Your task to perform on an android device: set the timer Image 0: 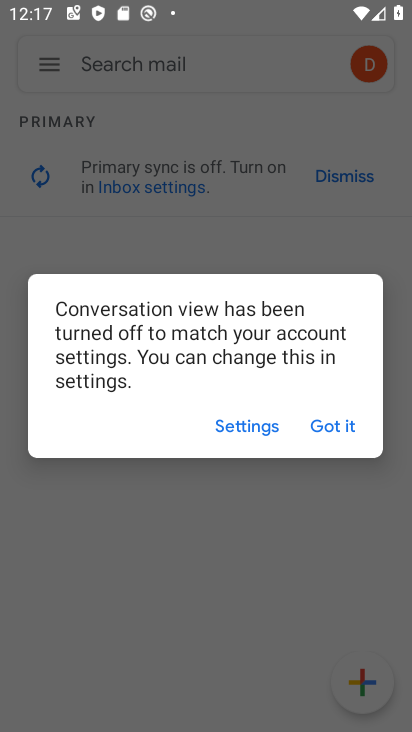
Step 0: press back button
Your task to perform on an android device: set the timer Image 1: 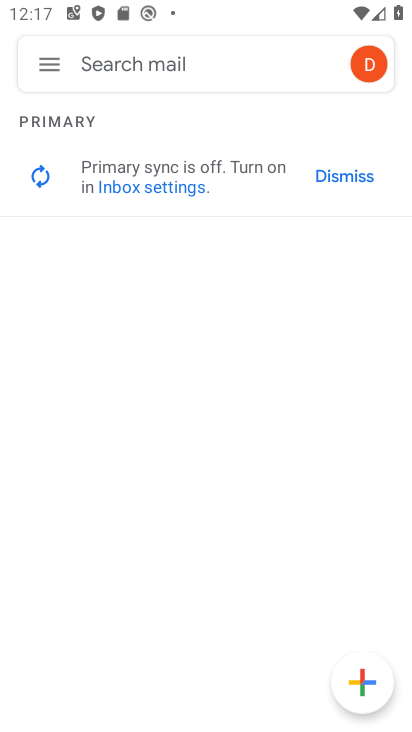
Step 1: press home button
Your task to perform on an android device: set the timer Image 2: 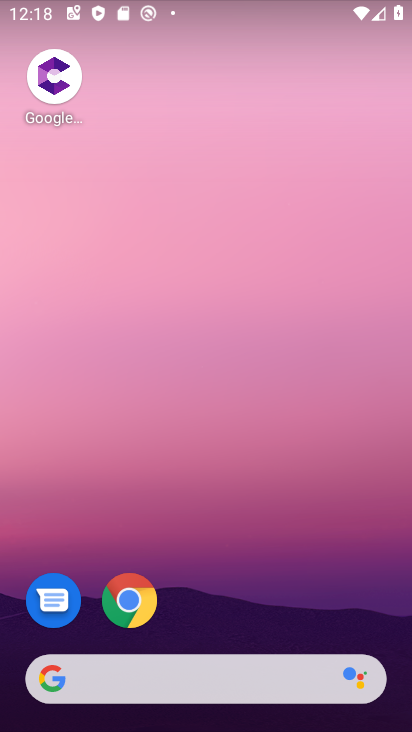
Step 2: drag from (233, 663) to (213, 190)
Your task to perform on an android device: set the timer Image 3: 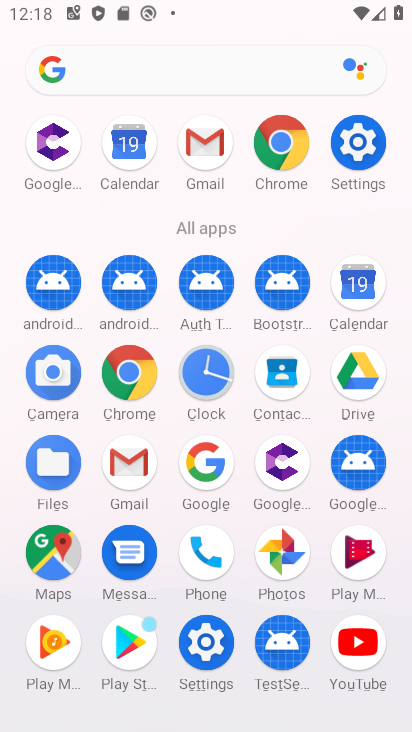
Step 3: drag from (210, 389) to (190, 338)
Your task to perform on an android device: set the timer Image 4: 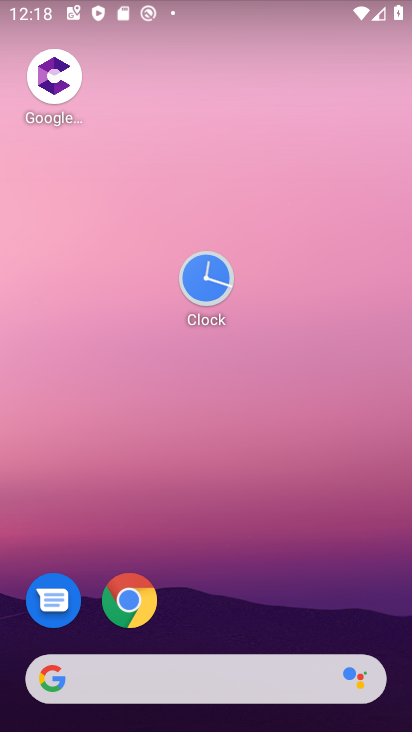
Step 4: click (219, 296)
Your task to perform on an android device: set the timer Image 5: 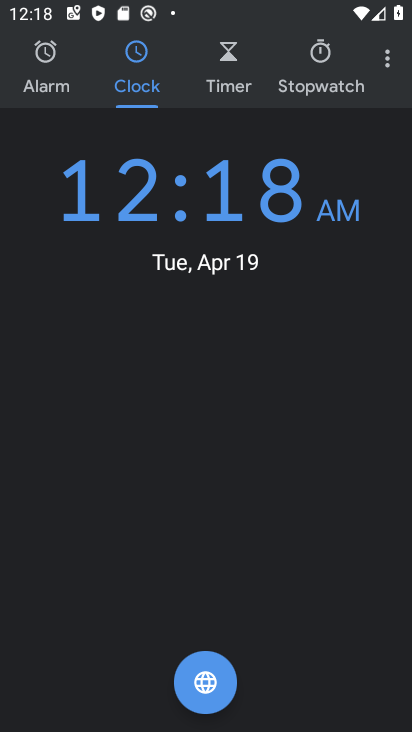
Step 5: click (220, 72)
Your task to perform on an android device: set the timer Image 6: 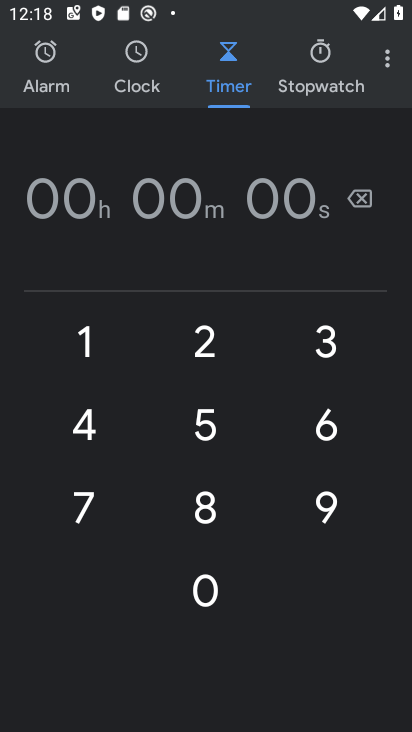
Step 6: click (113, 428)
Your task to perform on an android device: set the timer Image 7: 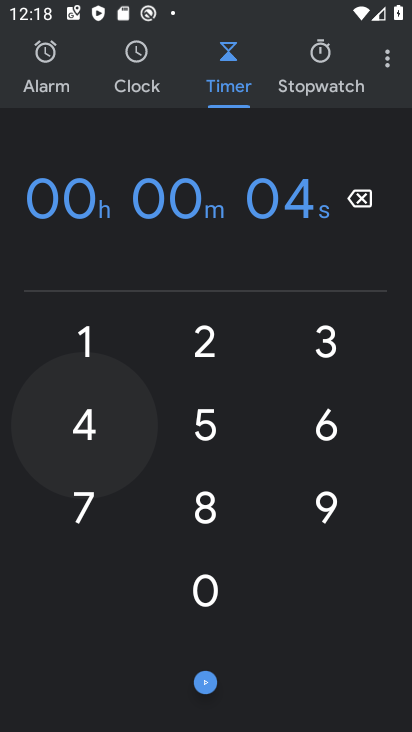
Step 7: click (234, 458)
Your task to perform on an android device: set the timer Image 8: 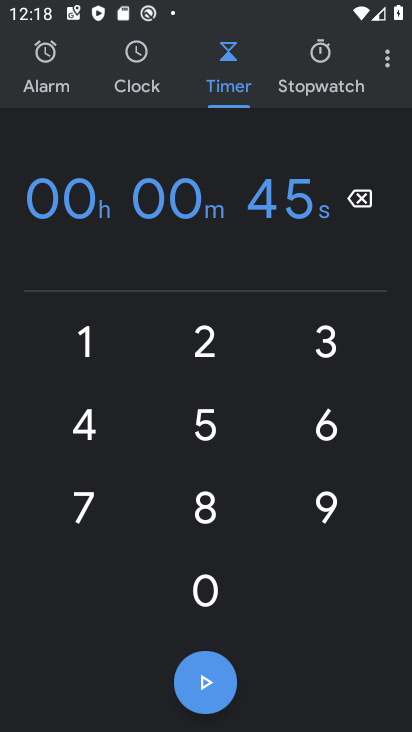
Step 8: click (317, 505)
Your task to perform on an android device: set the timer Image 9: 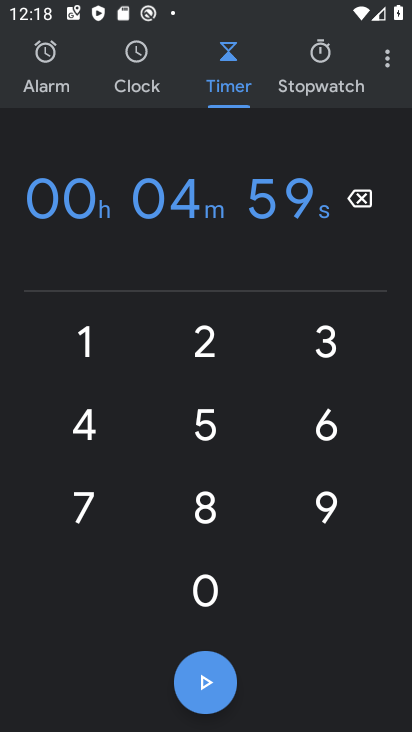
Step 9: click (316, 335)
Your task to perform on an android device: set the timer Image 10: 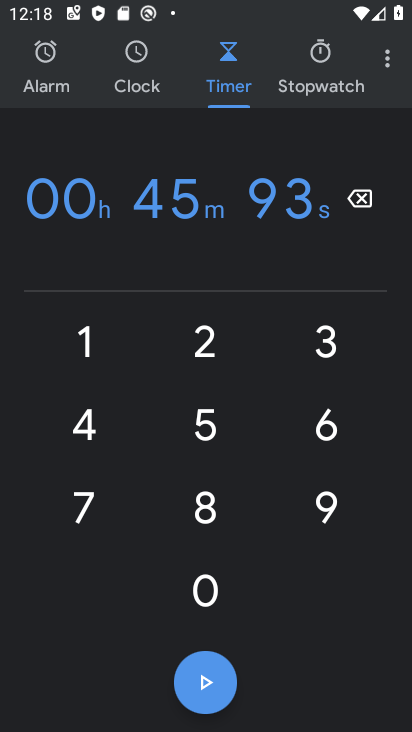
Step 10: click (201, 670)
Your task to perform on an android device: set the timer Image 11: 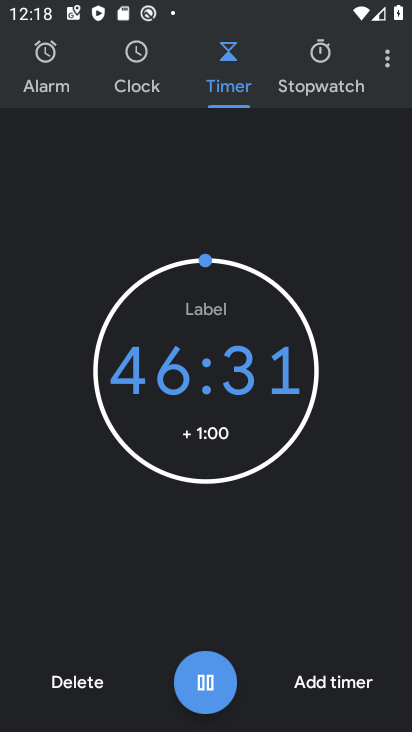
Step 11: task complete